Your task to perform on an android device: What's the weather? Image 0: 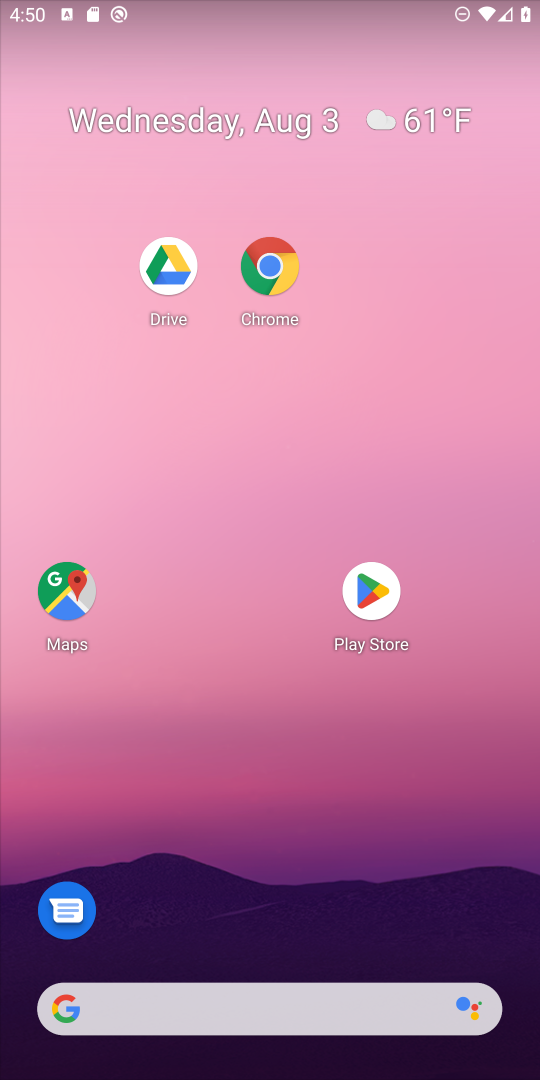
Step 0: drag from (380, 995) to (480, 2)
Your task to perform on an android device: What's the weather? Image 1: 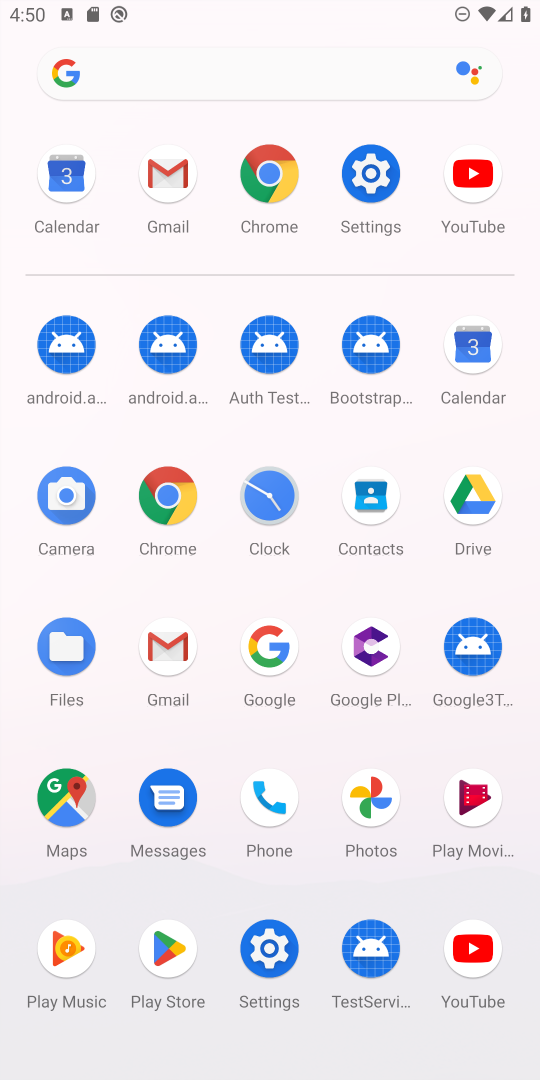
Step 1: press home button
Your task to perform on an android device: What's the weather? Image 2: 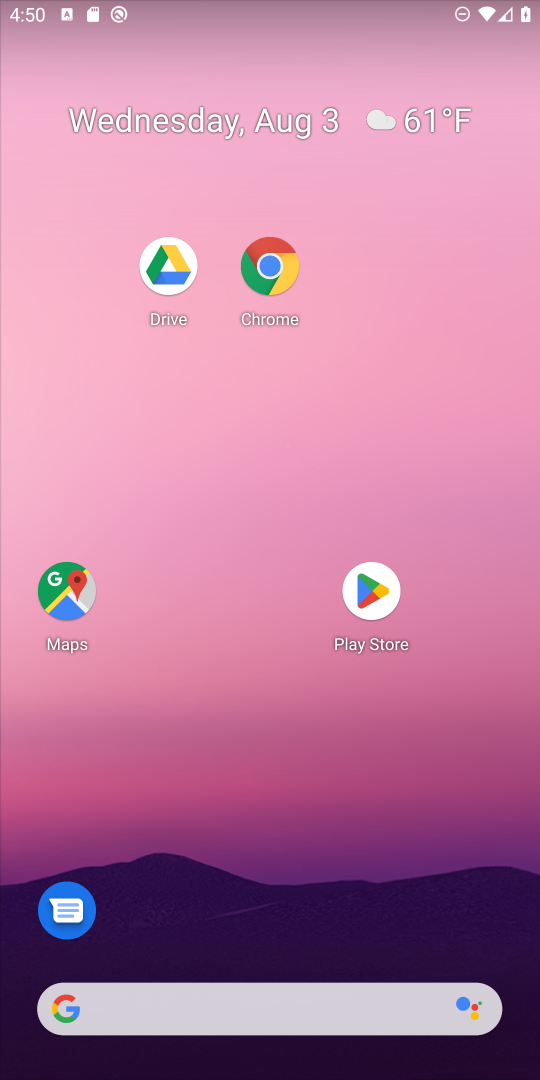
Step 2: drag from (46, 315) to (496, 339)
Your task to perform on an android device: What's the weather? Image 3: 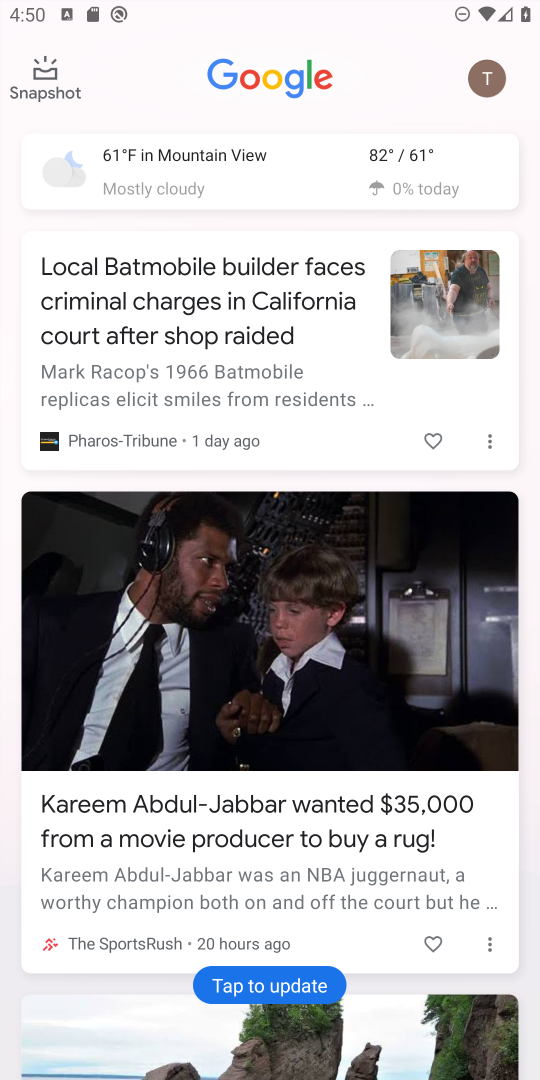
Step 3: click (272, 172)
Your task to perform on an android device: What's the weather? Image 4: 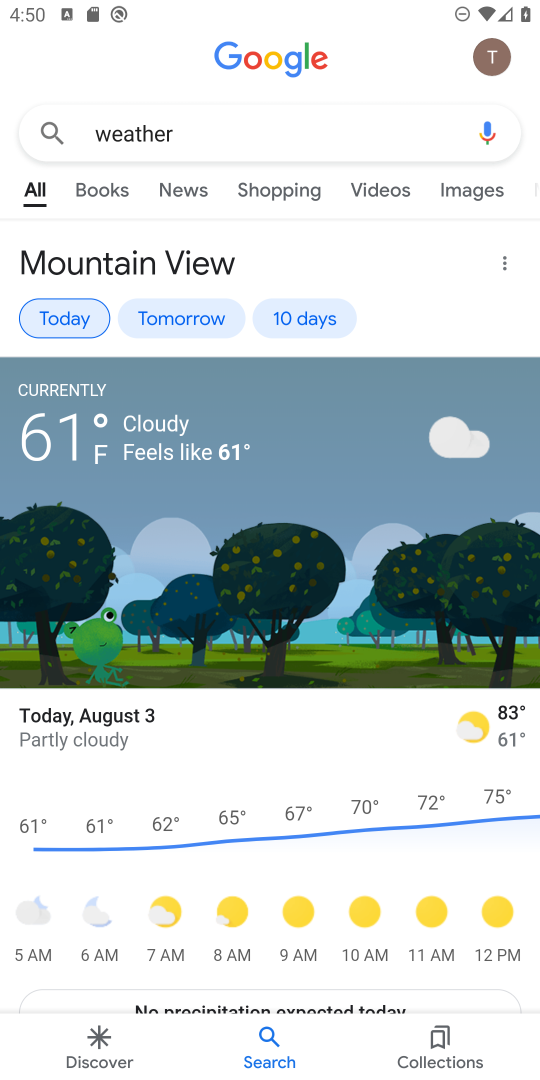
Step 4: task complete